Your task to perform on an android device: snooze an email in the gmail app Image 0: 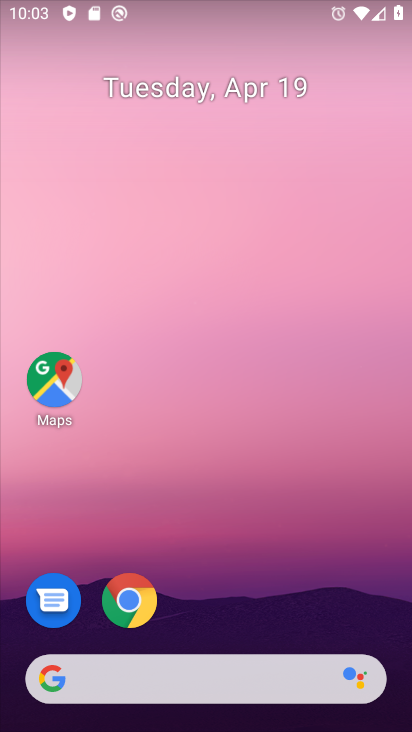
Step 0: drag from (258, 631) to (359, 161)
Your task to perform on an android device: snooze an email in the gmail app Image 1: 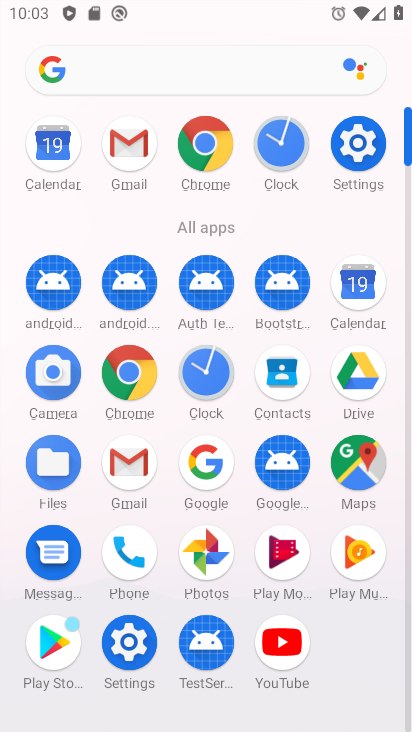
Step 1: click (118, 461)
Your task to perform on an android device: snooze an email in the gmail app Image 2: 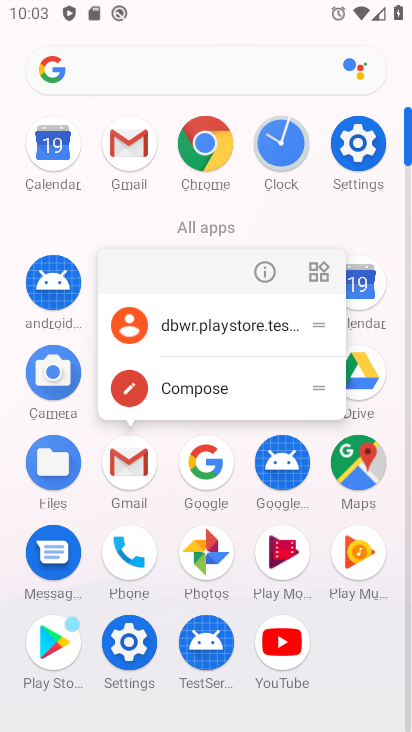
Step 2: click (126, 449)
Your task to perform on an android device: snooze an email in the gmail app Image 3: 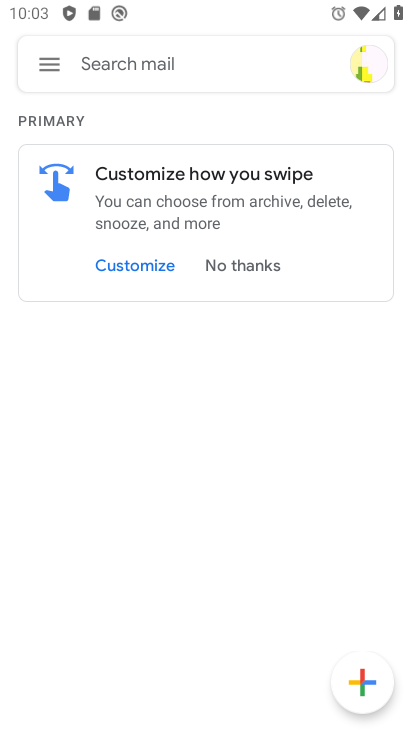
Step 3: click (51, 65)
Your task to perform on an android device: snooze an email in the gmail app Image 4: 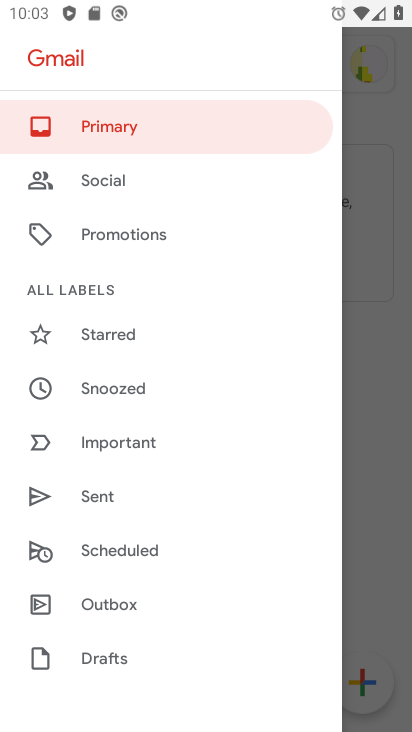
Step 4: drag from (145, 613) to (199, 206)
Your task to perform on an android device: snooze an email in the gmail app Image 5: 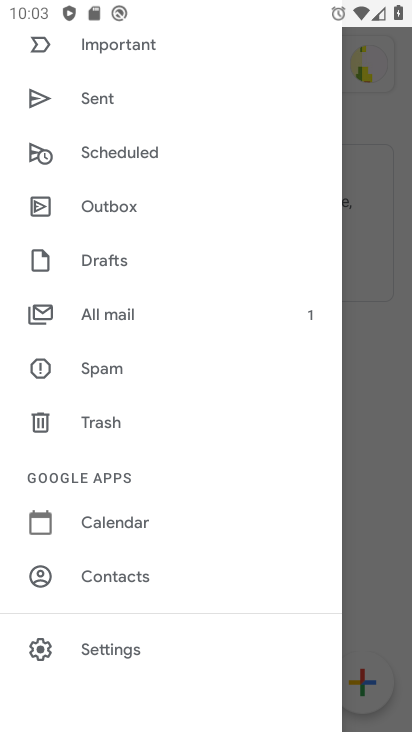
Step 5: click (131, 308)
Your task to perform on an android device: snooze an email in the gmail app Image 6: 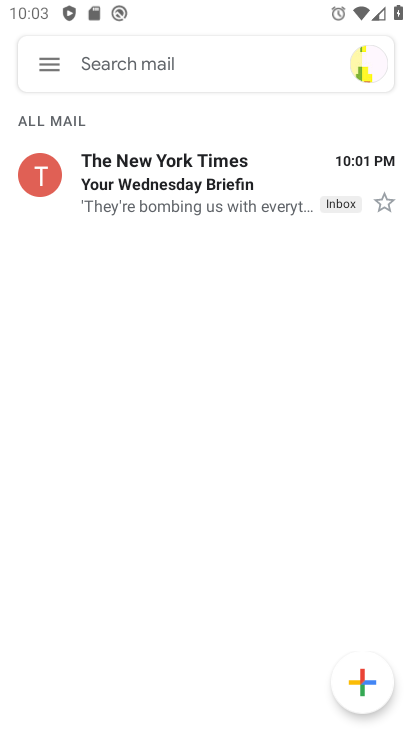
Step 6: click (20, 175)
Your task to perform on an android device: snooze an email in the gmail app Image 7: 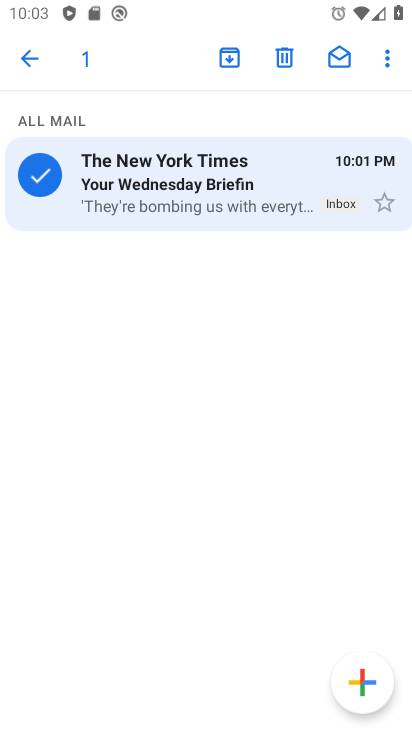
Step 7: click (386, 62)
Your task to perform on an android device: snooze an email in the gmail app Image 8: 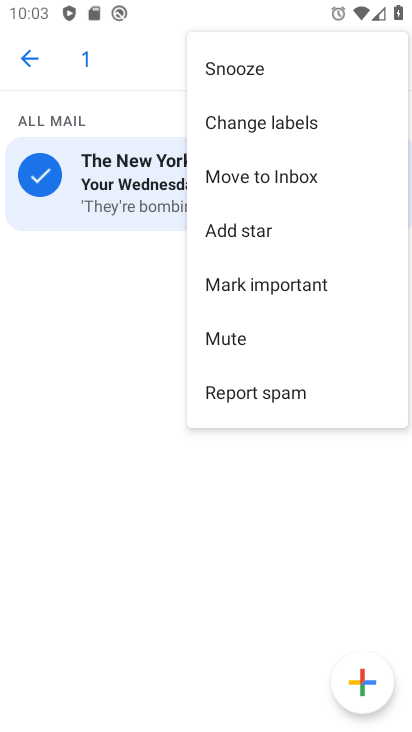
Step 8: click (244, 64)
Your task to perform on an android device: snooze an email in the gmail app Image 9: 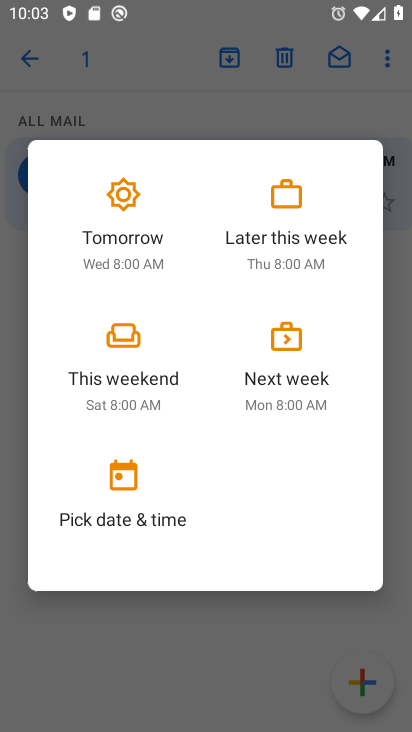
Step 9: click (137, 254)
Your task to perform on an android device: snooze an email in the gmail app Image 10: 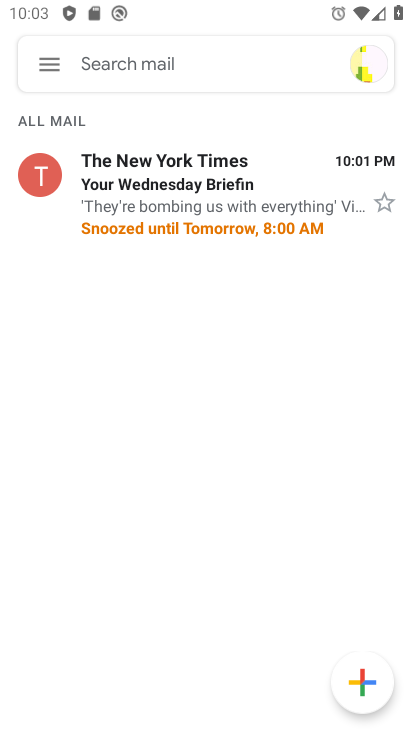
Step 10: task complete